Your task to perform on an android device: snooze an email in the gmail app Image 0: 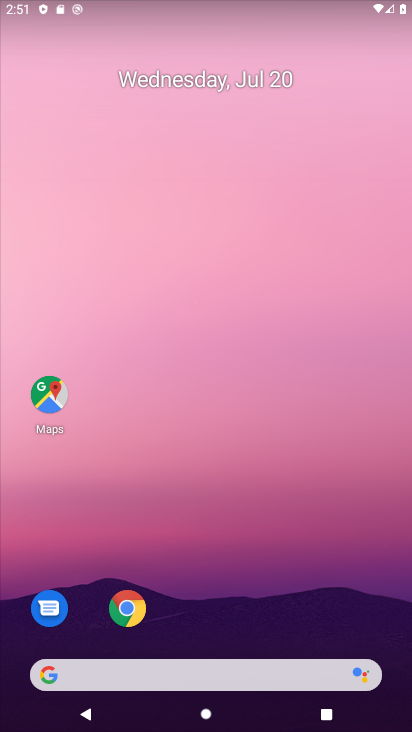
Step 0: click (307, 84)
Your task to perform on an android device: snooze an email in the gmail app Image 1: 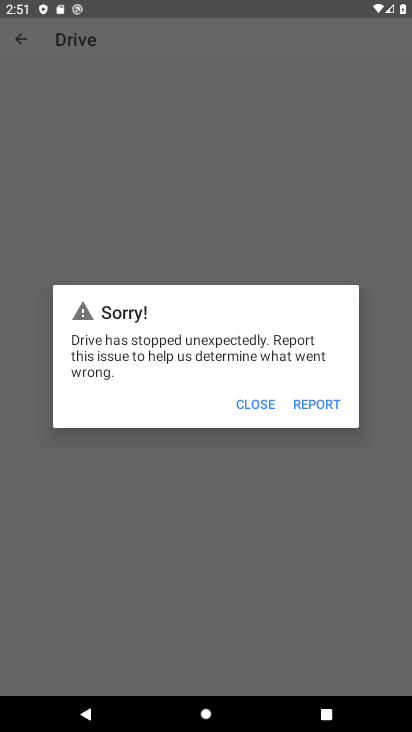
Step 1: press home button
Your task to perform on an android device: snooze an email in the gmail app Image 2: 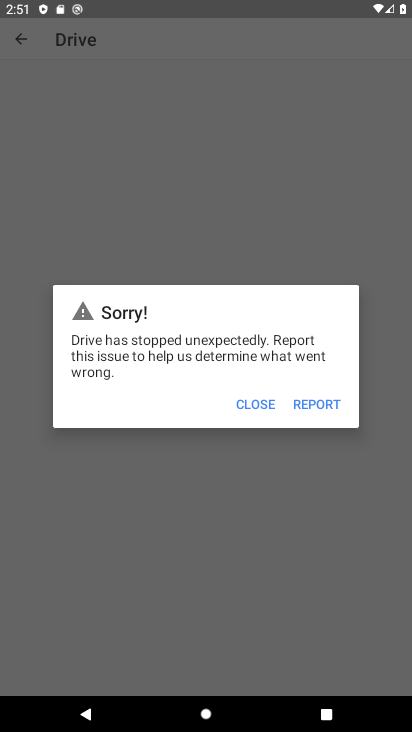
Step 2: press home button
Your task to perform on an android device: snooze an email in the gmail app Image 3: 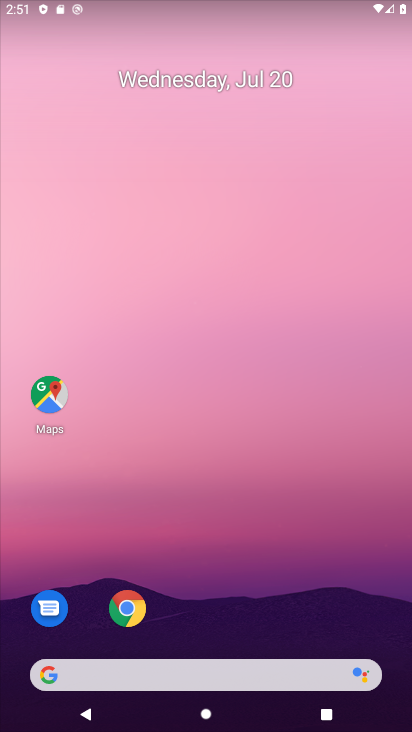
Step 3: drag from (281, 574) to (254, 11)
Your task to perform on an android device: snooze an email in the gmail app Image 4: 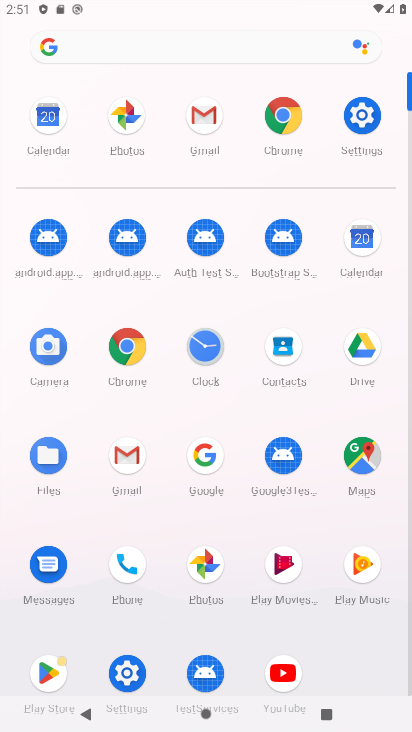
Step 4: click (215, 108)
Your task to perform on an android device: snooze an email in the gmail app Image 5: 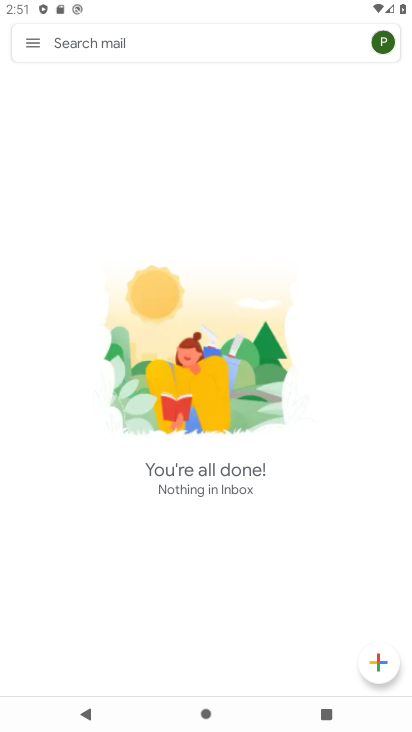
Step 5: click (25, 47)
Your task to perform on an android device: snooze an email in the gmail app Image 6: 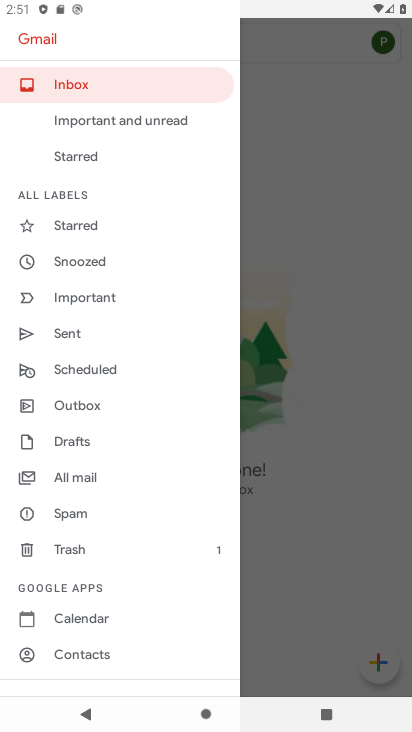
Step 6: click (69, 473)
Your task to perform on an android device: snooze an email in the gmail app Image 7: 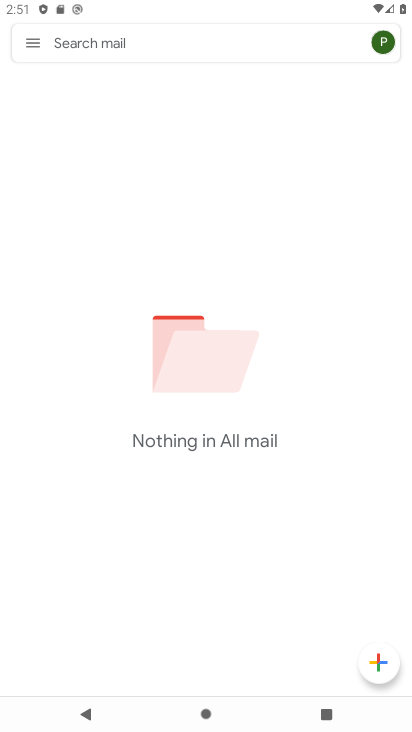
Step 7: task complete